Your task to perform on an android device: Search for vegetarian restaurants on Maps Image 0: 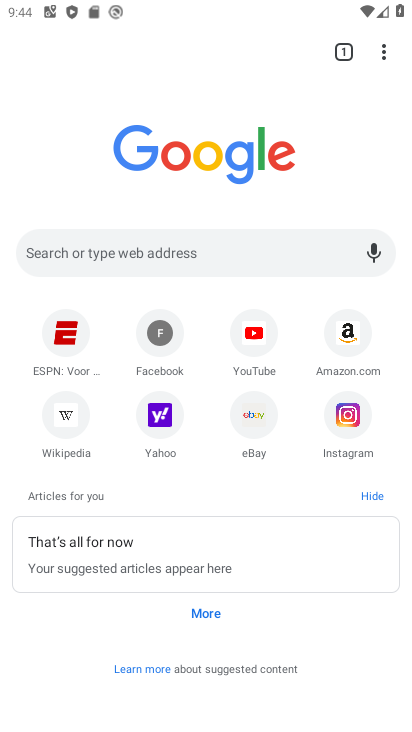
Step 0: press home button
Your task to perform on an android device: Search for vegetarian restaurants on Maps Image 1: 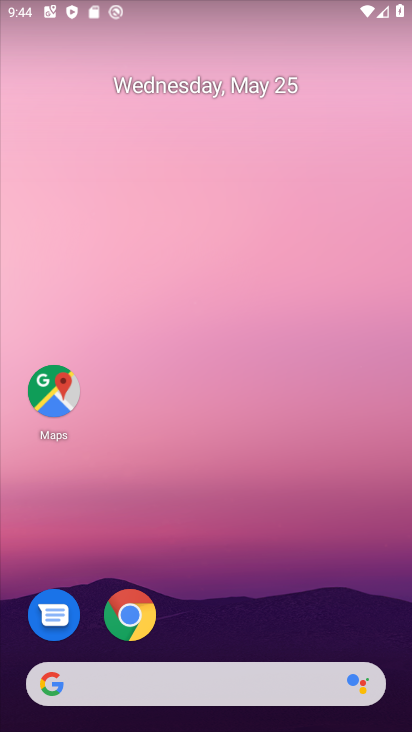
Step 1: click (62, 406)
Your task to perform on an android device: Search for vegetarian restaurants on Maps Image 2: 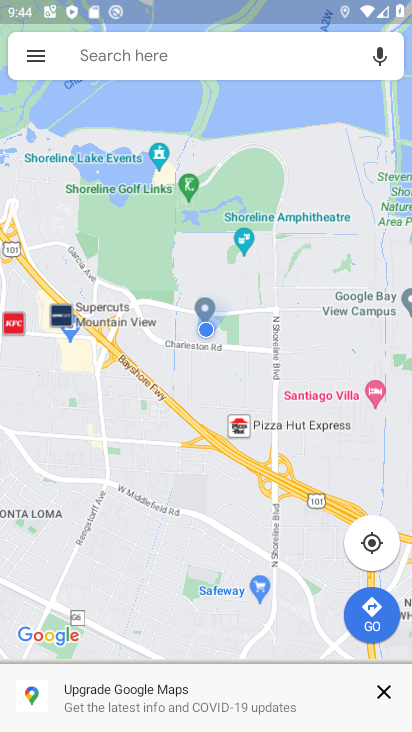
Step 2: click (209, 53)
Your task to perform on an android device: Search for vegetarian restaurants on Maps Image 3: 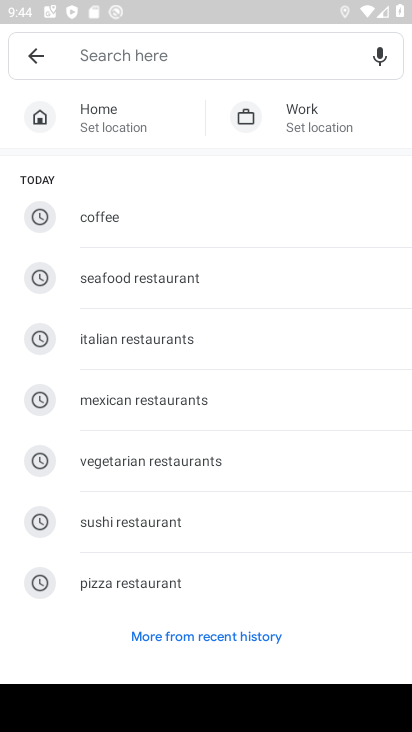
Step 3: click (169, 455)
Your task to perform on an android device: Search for vegetarian restaurants on Maps Image 4: 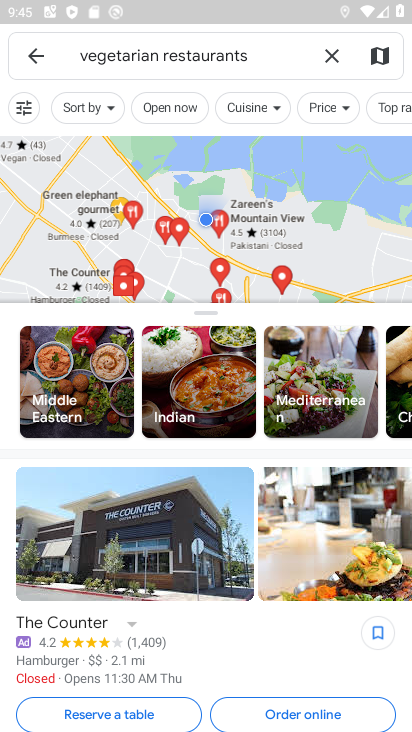
Step 4: task complete